Your task to perform on an android device: Open internet settings Image 0: 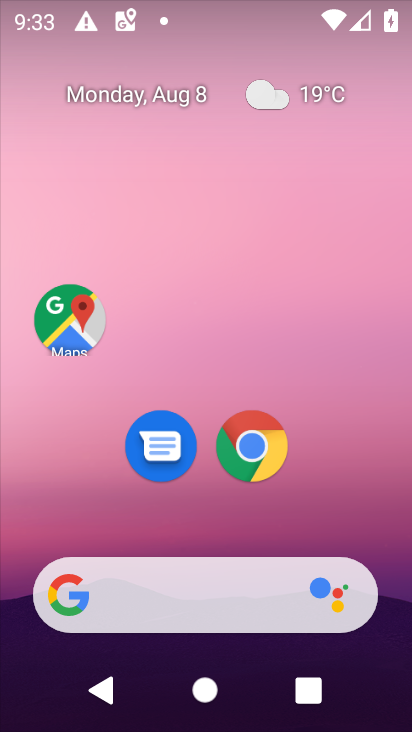
Step 0: drag from (394, 588) to (374, 141)
Your task to perform on an android device: Open internet settings Image 1: 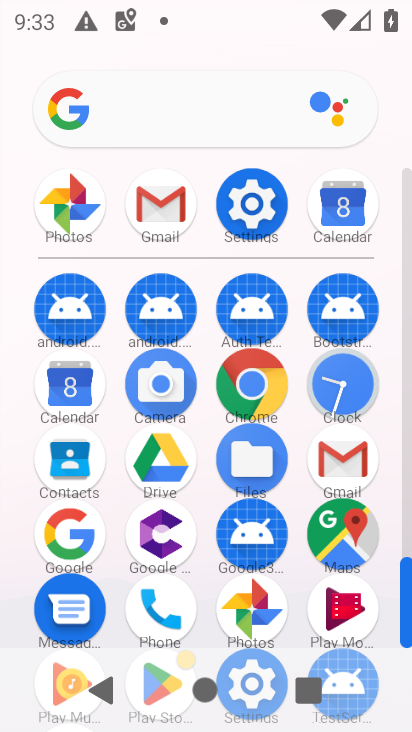
Step 1: drag from (403, 539) to (403, 485)
Your task to perform on an android device: Open internet settings Image 2: 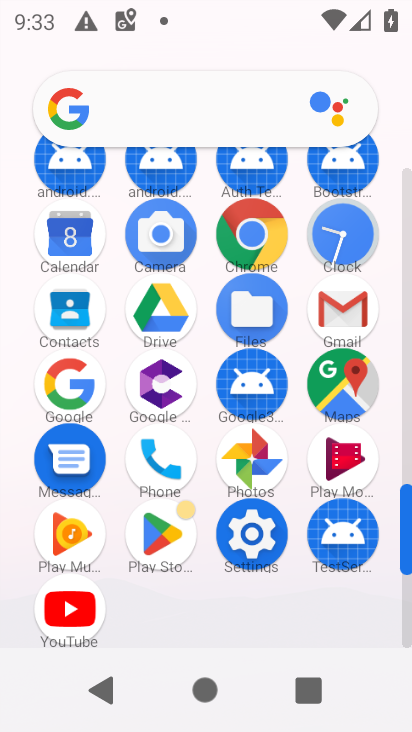
Step 2: click (250, 536)
Your task to perform on an android device: Open internet settings Image 3: 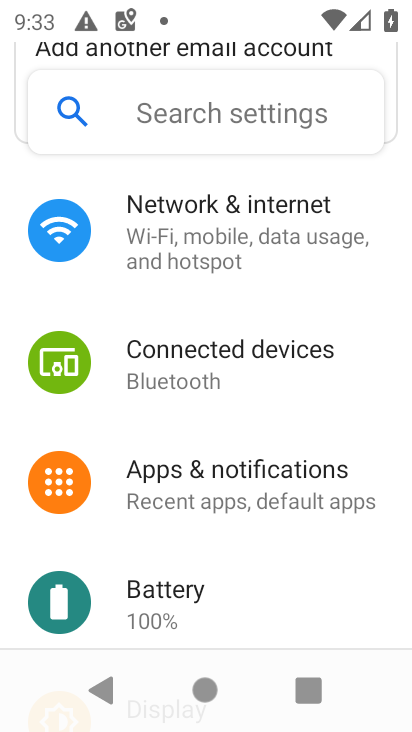
Step 3: click (183, 209)
Your task to perform on an android device: Open internet settings Image 4: 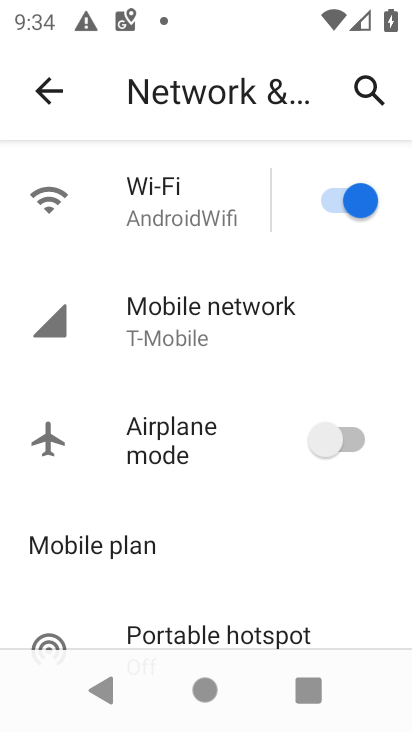
Step 4: click (172, 318)
Your task to perform on an android device: Open internet settings Image 5: 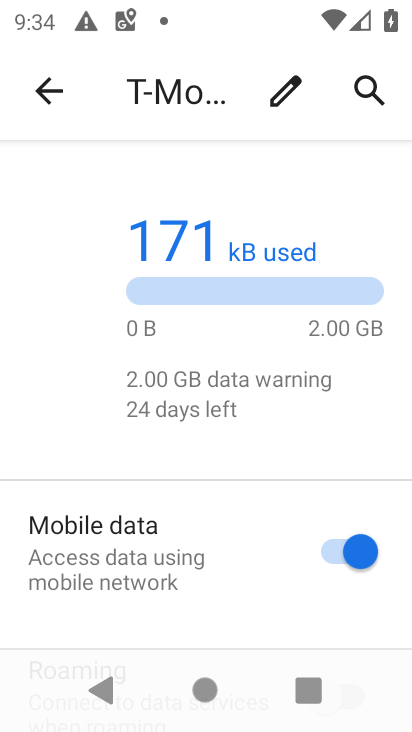
Step 5: task complete